Your task to perform on an android device: What's on my calendar today? Image 0: 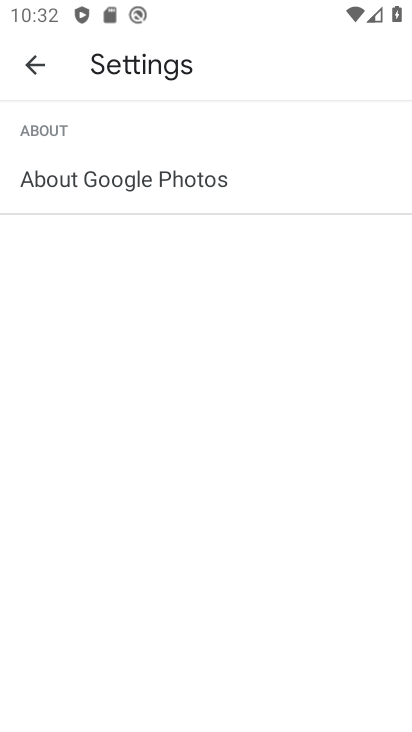
Step 0: click (31, 62)
Your task to perform on an android device: What's on my calendar today? Image 1: 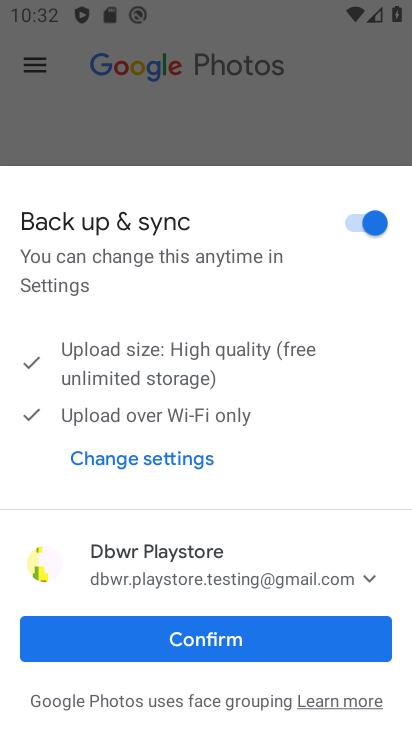
Step 1: click (229, 650)
Your task to perform on an android device: What's on my calendar today? Image 2: 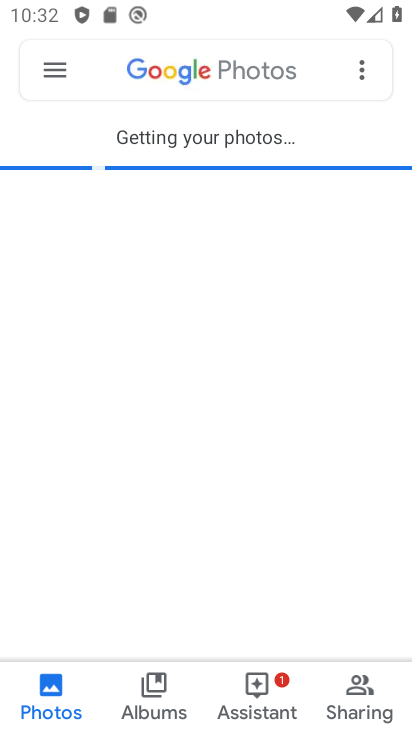
Step 2: press back button
Your task to perform on an android device: What's on my calendar today? Image 3: 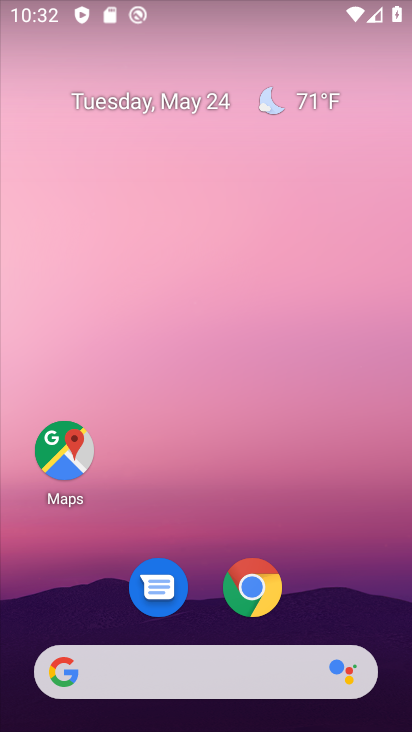
Step 3: click (220, 50)
Your task to perform on an android device: What's on my calendar today? Image 4: 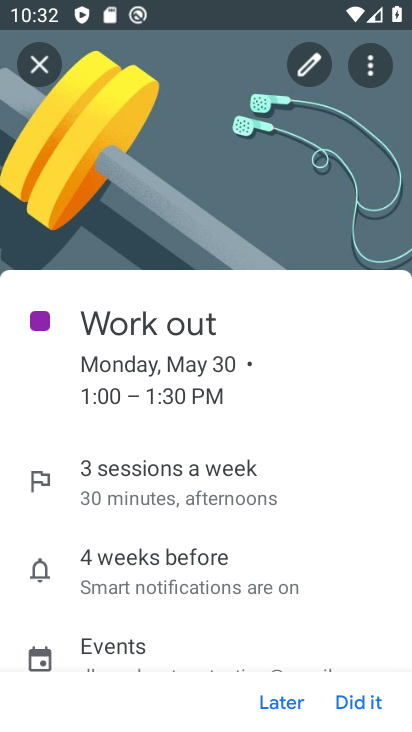
Step 4: press back button
Your task to perform on an android device: What's on my calendar today? Image 5: 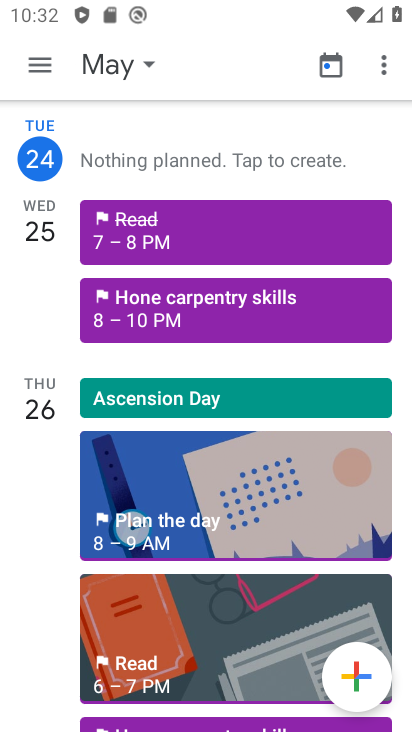
Step 5: press home button
Your task to perform on an android device: What's on my calendar today? Image 6: 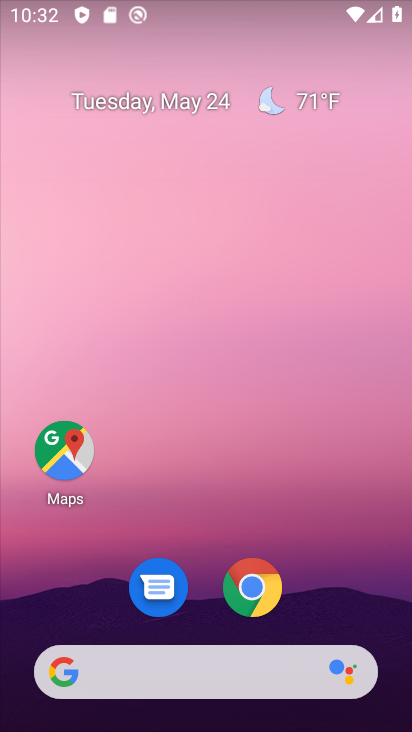
Step 6: drag from (261, 711) to (108, 133)
Your task to perform on an android device: What's on my calendar today? Image 7: 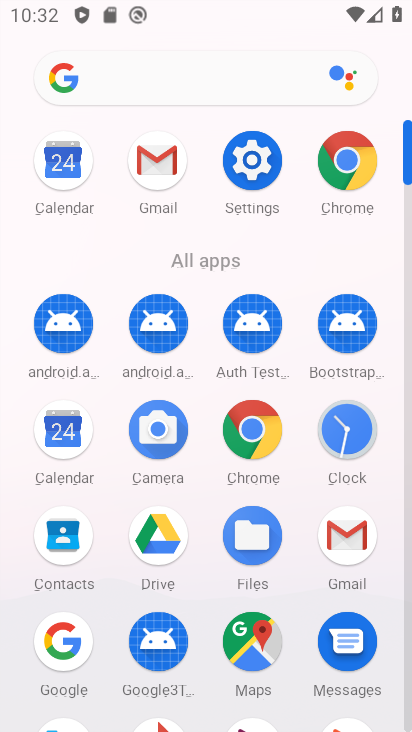
Step 7: click (59, 439)
Your task to perform on an android device: What's on my calendar today? Image 8: 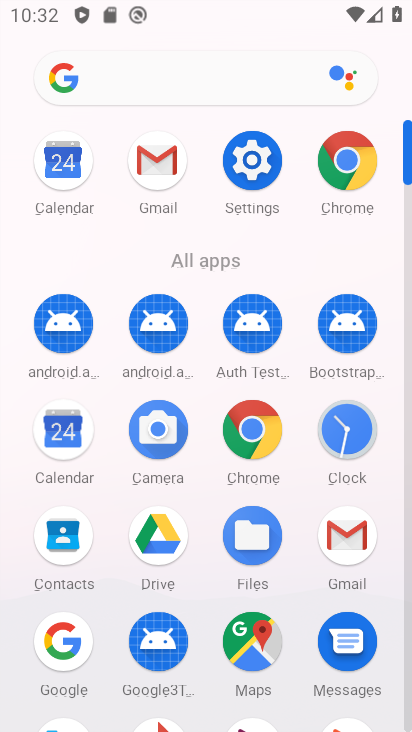
Step 8: click (59, 439)
Your task to perform on an android device: What's on my calendar today? Image 9: 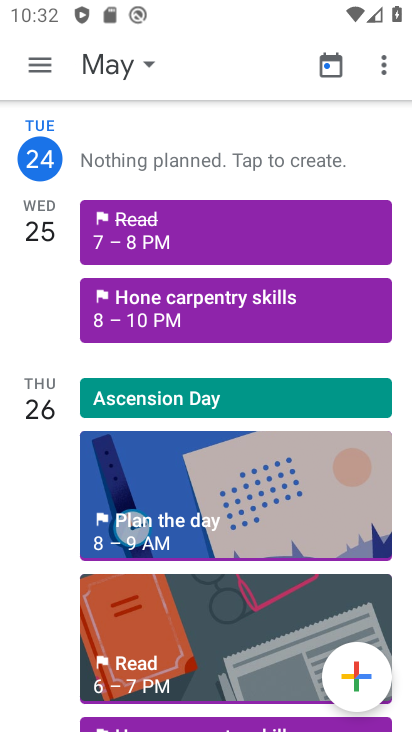
Step 9: task complete